Your task to perform on an android device: Open Chrome and go to settings Image 0: 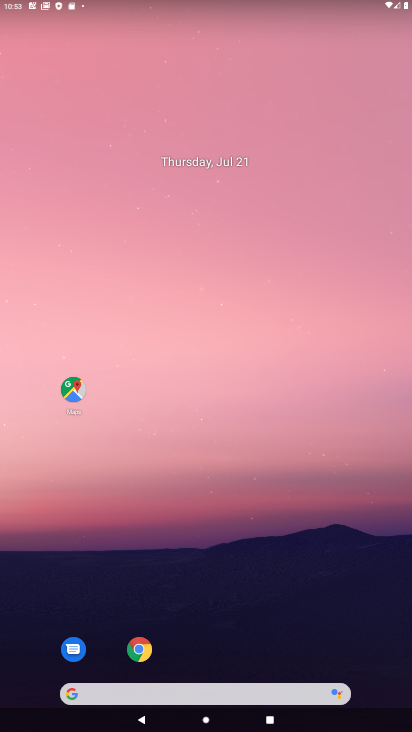
Step 0: click (144, 655)
Your task to perform on an android device: Open Chrome and go to settings Image 1: 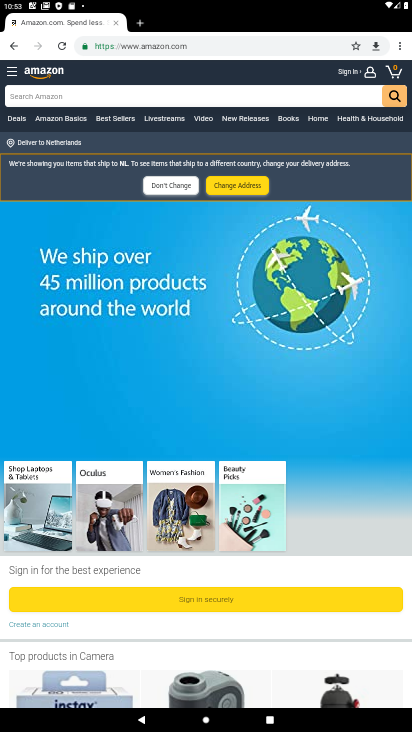
Step 1: click (404, 39)
Your task to perform on an android device: Open Chrome and go to settings Image 2: 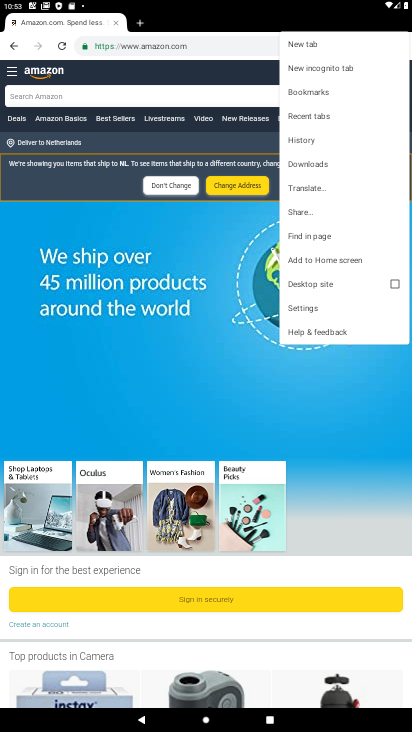
Step 2: click (315, 310)
Your task to perform on an android device: Open Chrome and go to settings Image 3: 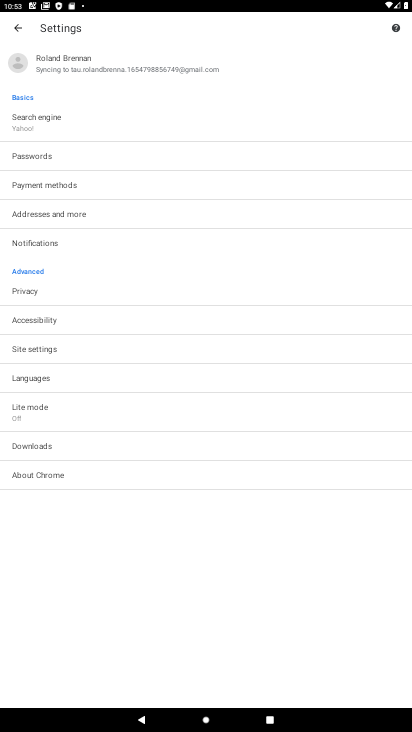
Step 3: task complete